Your task to perform on an android device: Clear the shopping cart on costco. Add "jbl flip 4" to the cart on costco, then select checkout. Image 0: 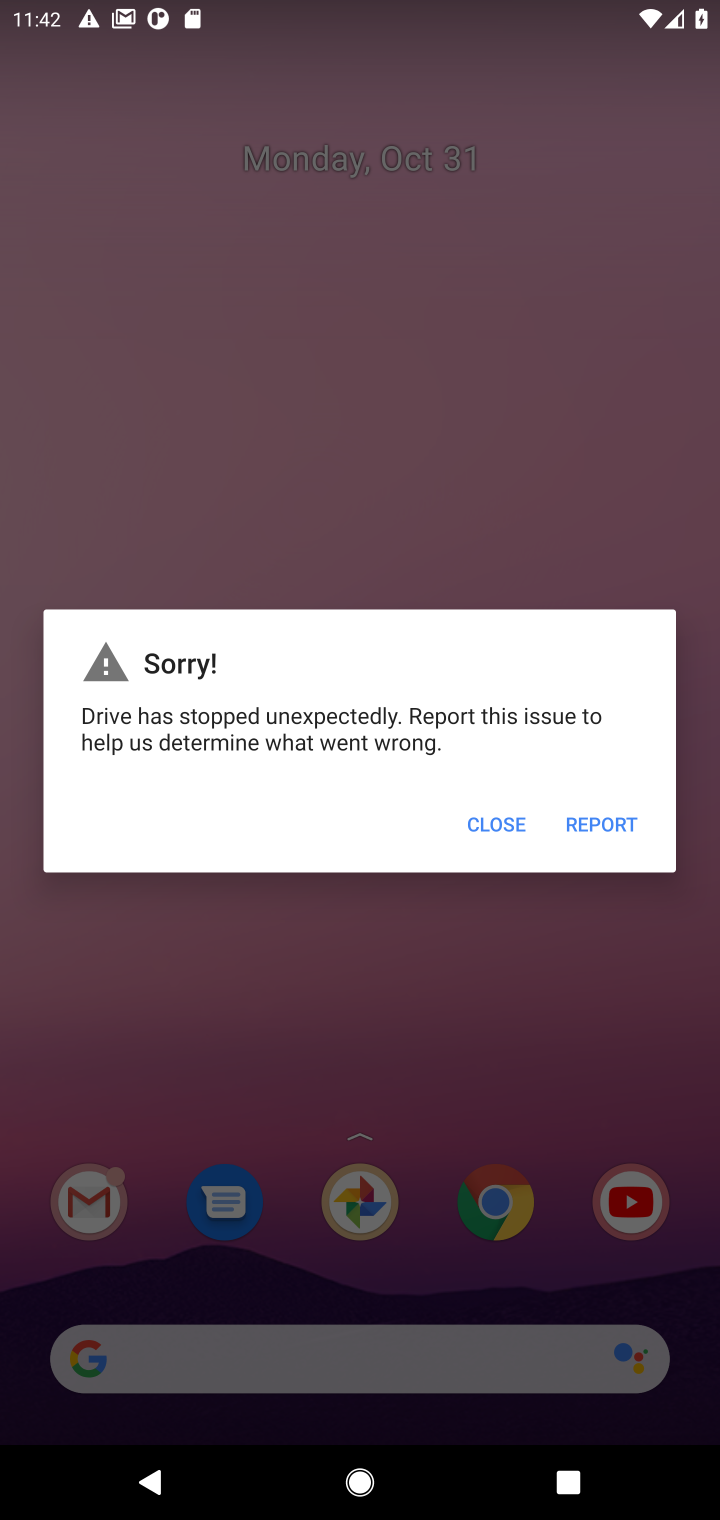
Step 0: click (486, 823)
Your task to perform on an android device: Clear the shopping cart on costco. Add "jbl flip 4" to the cart on costco, then select checkout. Image 1: 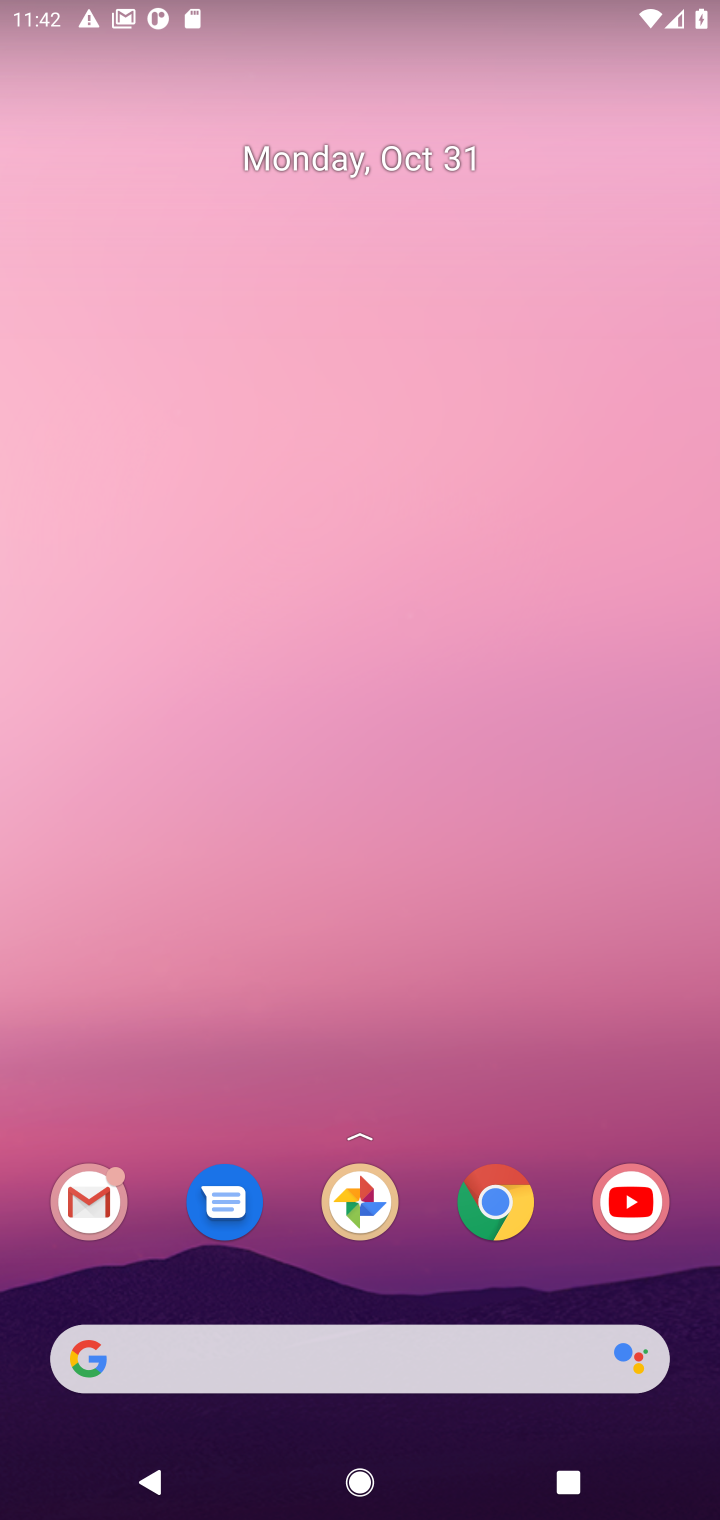
Step 1: click (502, 1201)
Your task to perform on an android device: Clear the shopping cart on costco. Add "jbl flip 4" to the cart on costco, then select checkout. Image 2: 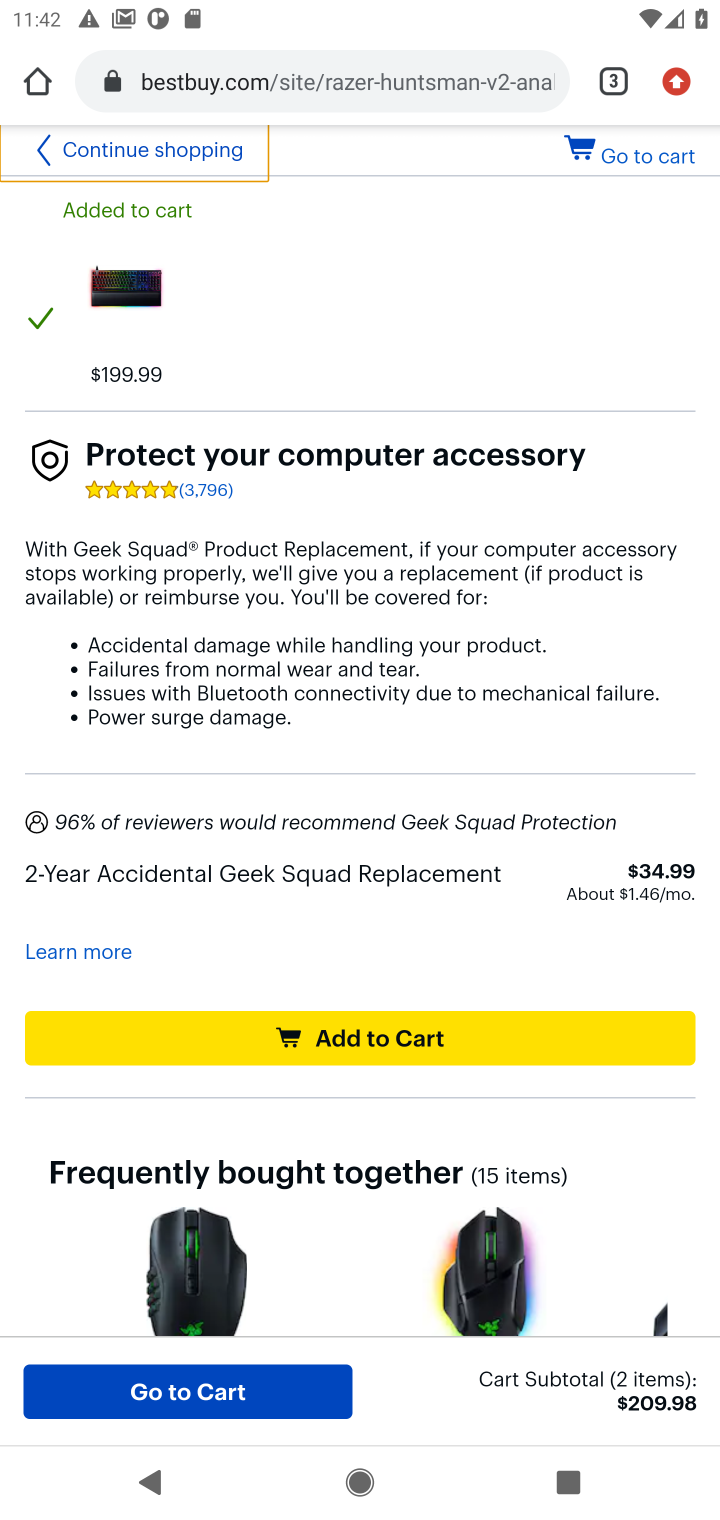
Step 2: click (608, 81)
Your task to perform on an android device: Clear the shopping cart on costco. Add "jbl flip 4" to the cart on costco, then select checkout. Image 3: 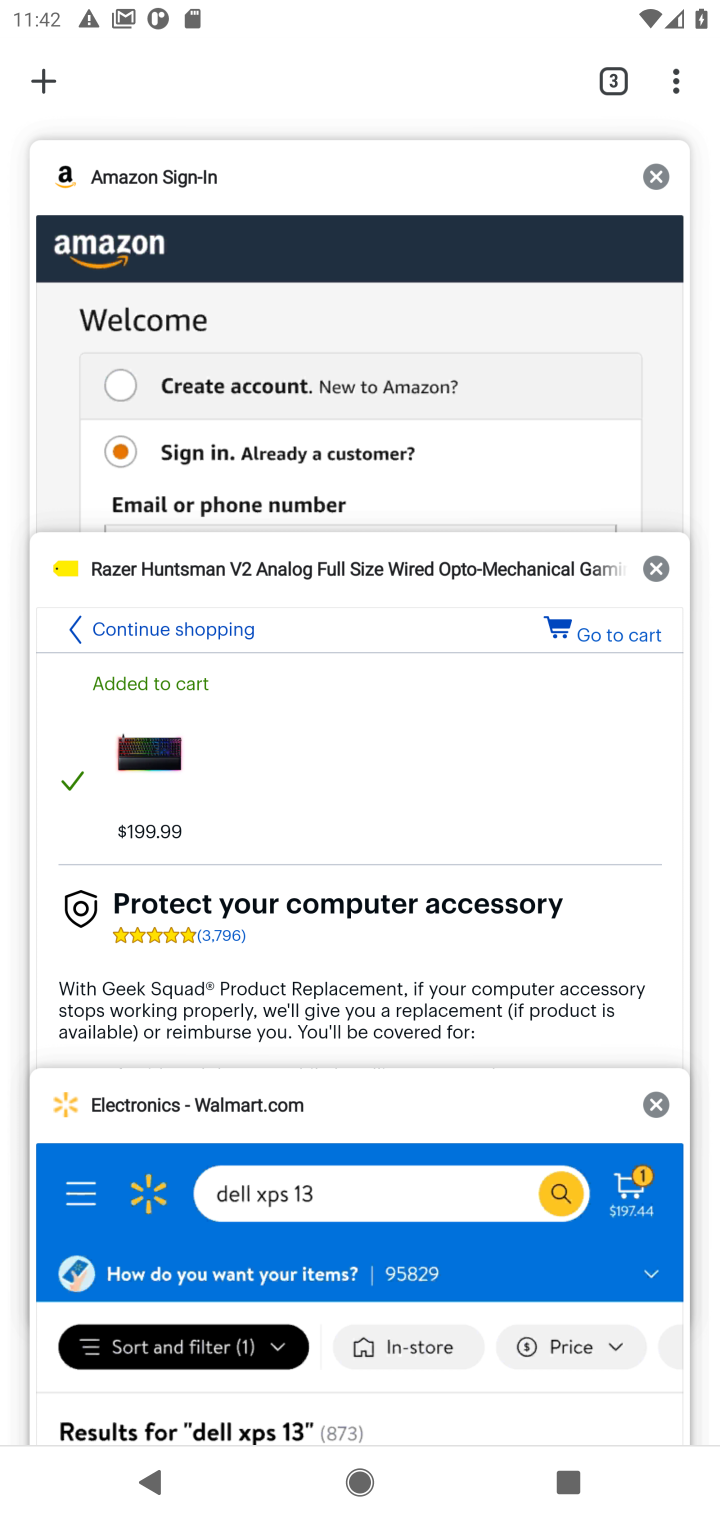
Step 3: click (618, 76)
Your task to perform on an android device: Clear the shopping cart on costco. Add "jbl flip 4" to the cart on costco, then select checkout. Image 4: 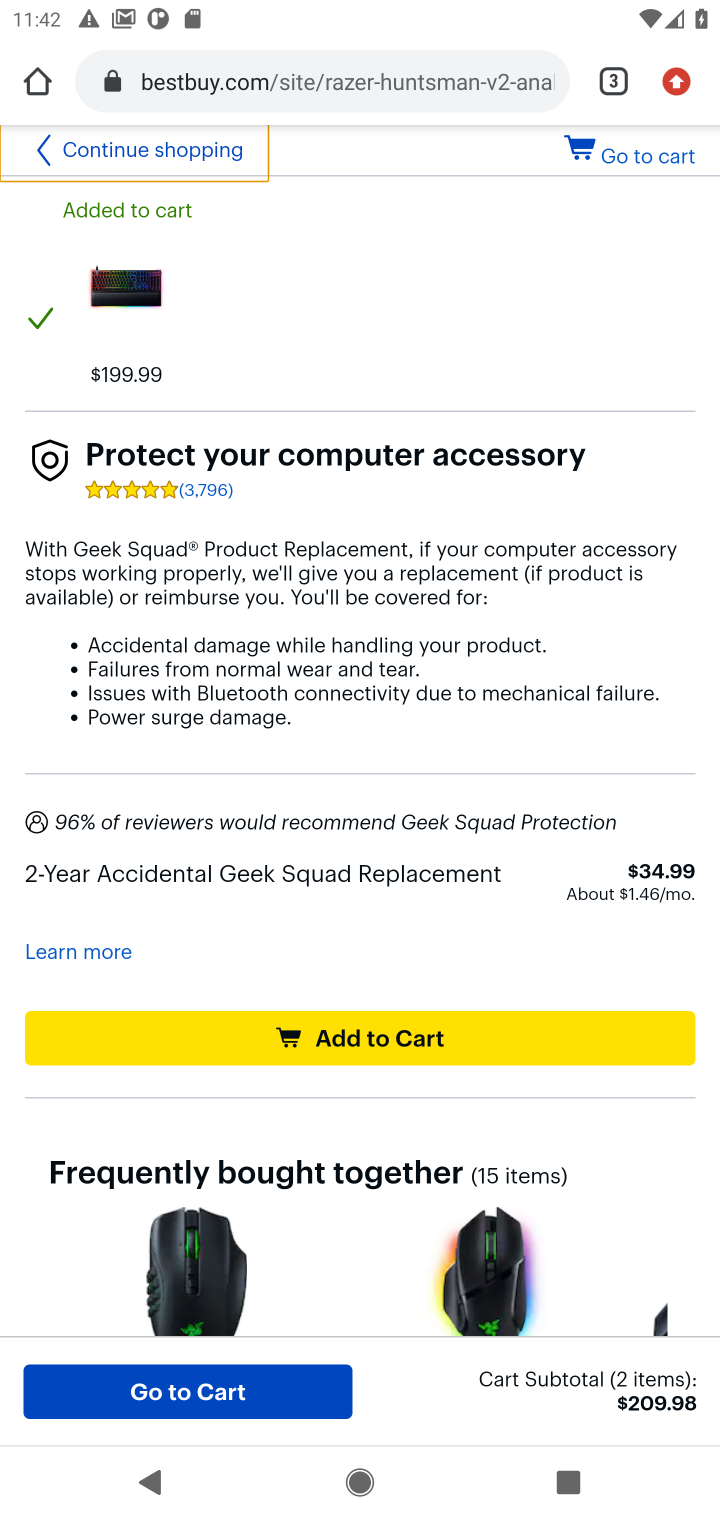
Step 4: click (42, 99)
Your task to perform on an android device: Clear the shopping cart on costco. Add "jbl flip 4" to the cart on costco, then select checkout. Image 5: 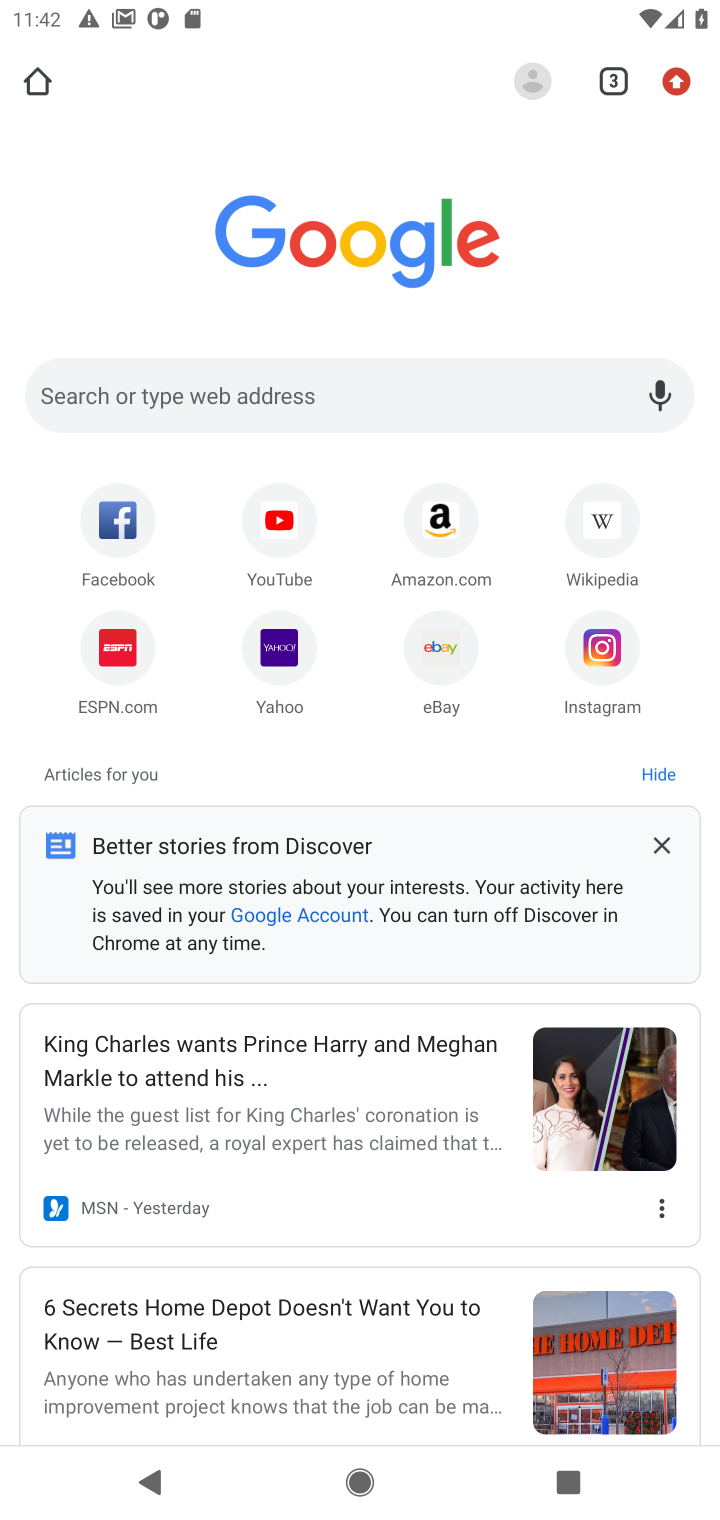
Step 5: click (42, 84)
Your task to perform on an android device: Clear the shopping cart on costco. Add "jbl flip 4" to the cart on costco, then select checkout. Image 6: 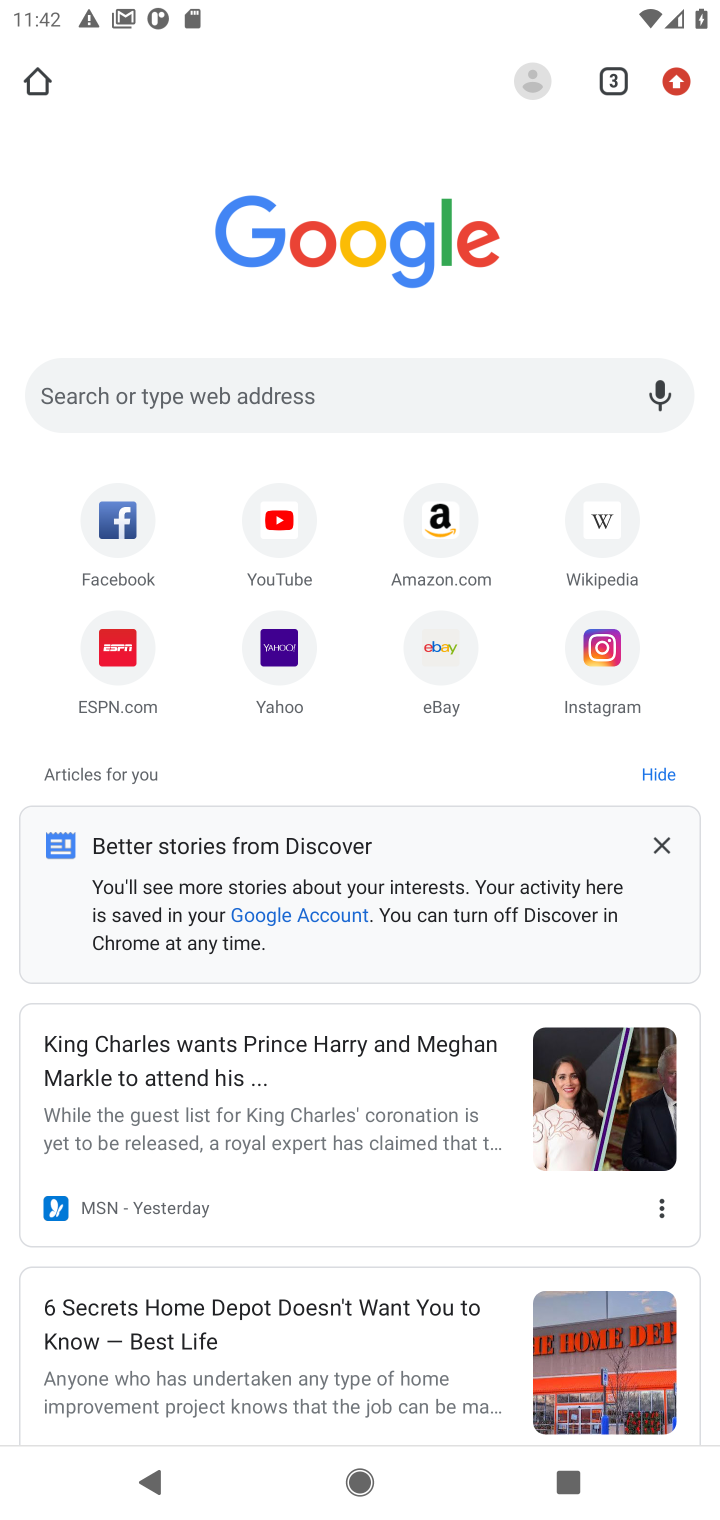
Step 6: click (600, 77)
Your task to perform on an android device: Clear the shopping cart on costco. Add "jbl flip 4" to the cart on costco, then select checkout. Image 7: 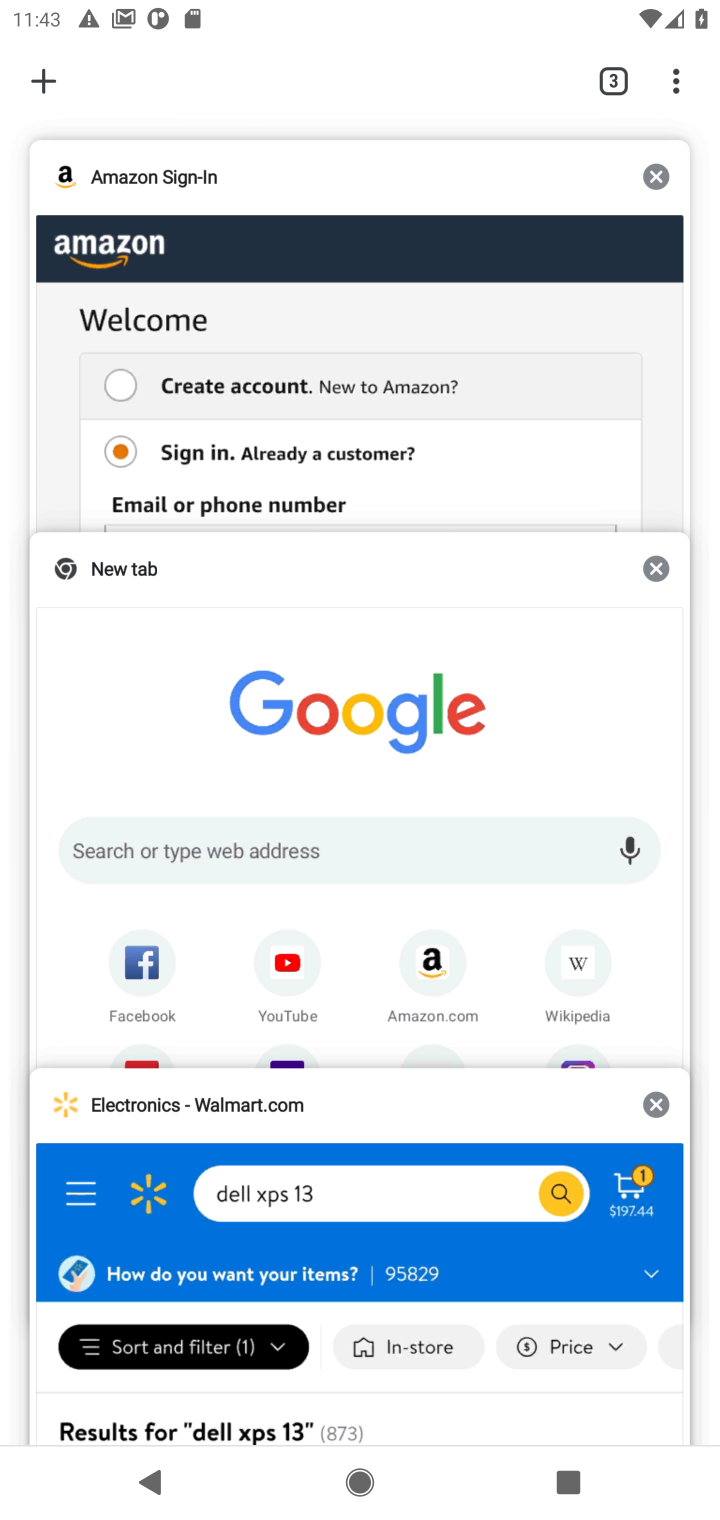
Step 7: click (615, 78)
Your task to perform on an android device: Clear the shopping cart on costco. Add "jbl flip 4" to the cart on costco, then select checkout. Image 8: 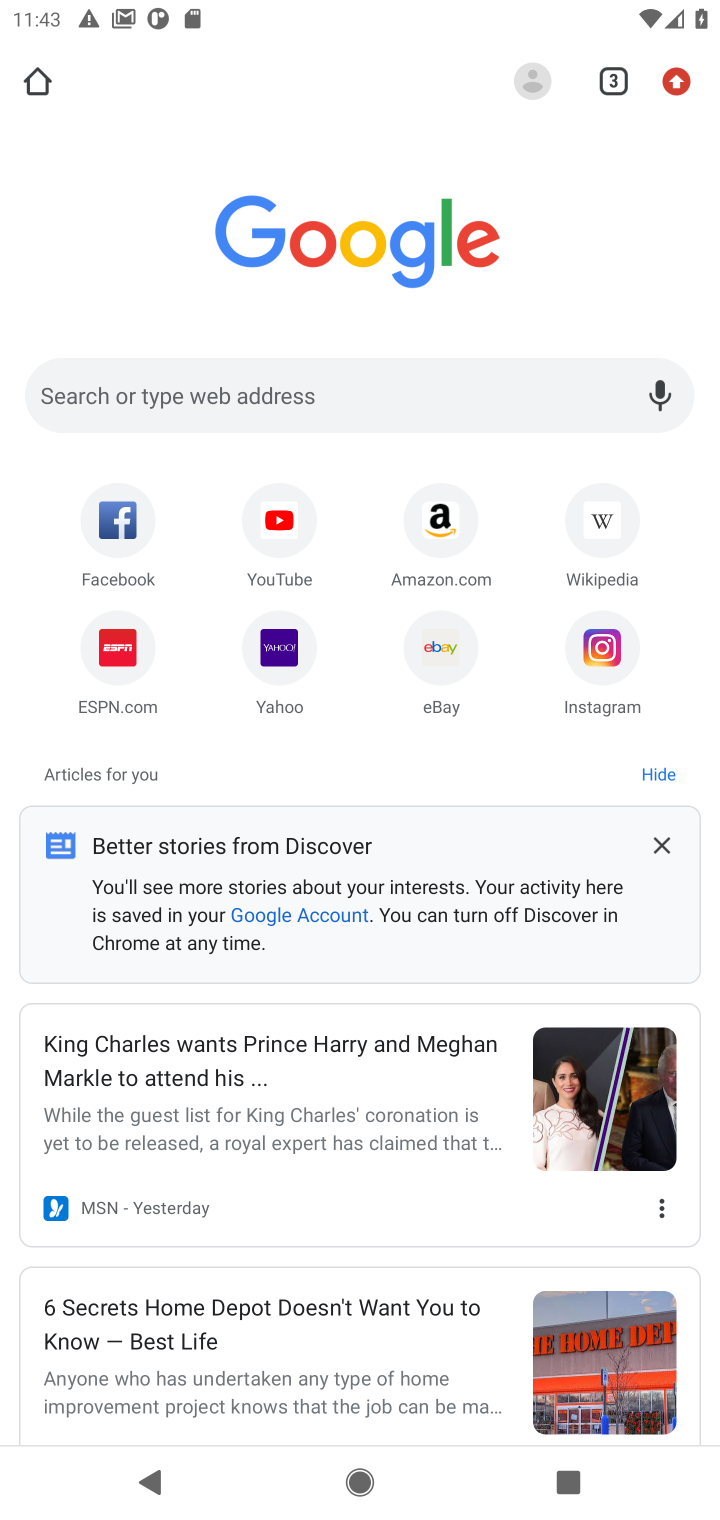
Step 8: click (610, 84)
Your task to perform on an android device: Clear the shopping cart on costco. Add "jbl flip 4" to the cart on costco, then select checkout. Image 9: 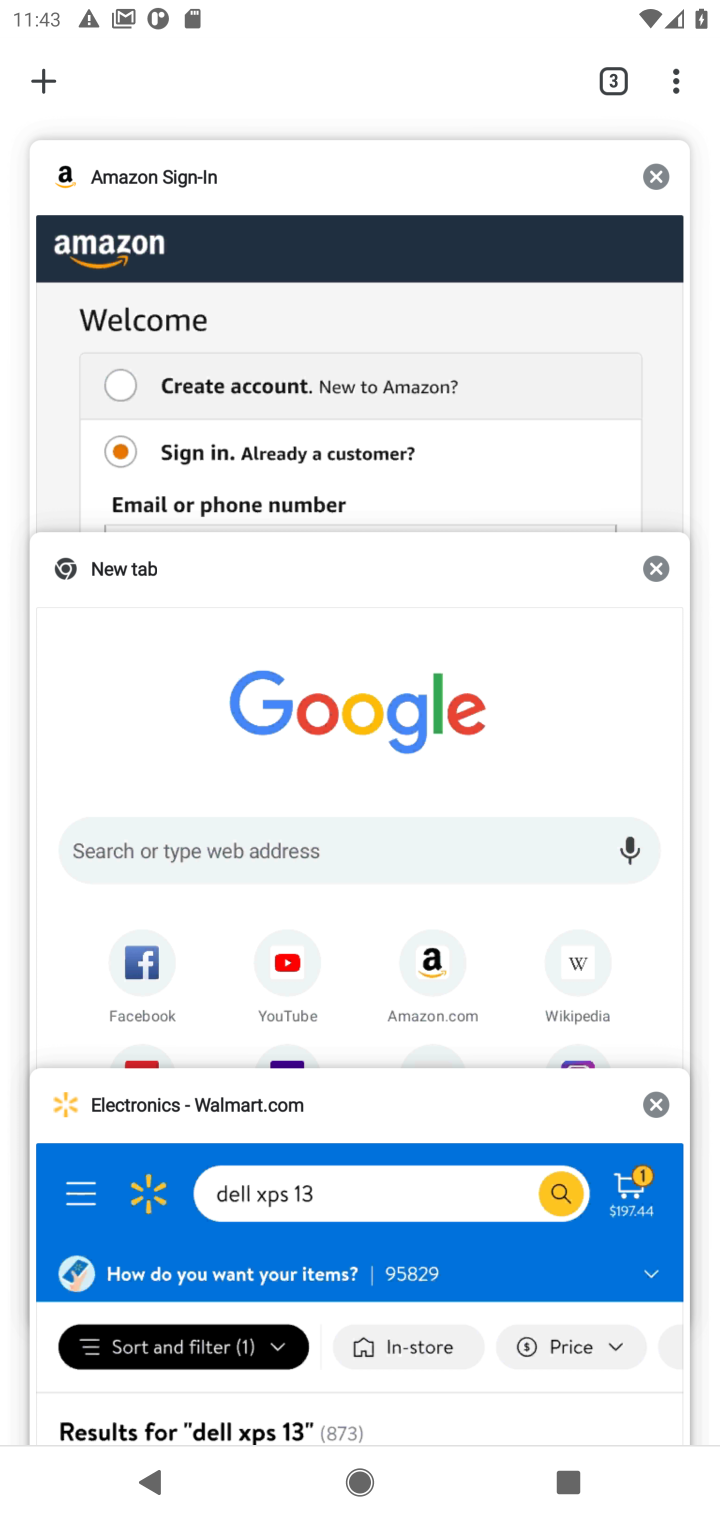
Step 9: click (49, 79)
Your task to perform on an android device: Clear the shopping cart on costco. Add "jbl flip 4" to the cart on costco, then select checkout. Image 10: 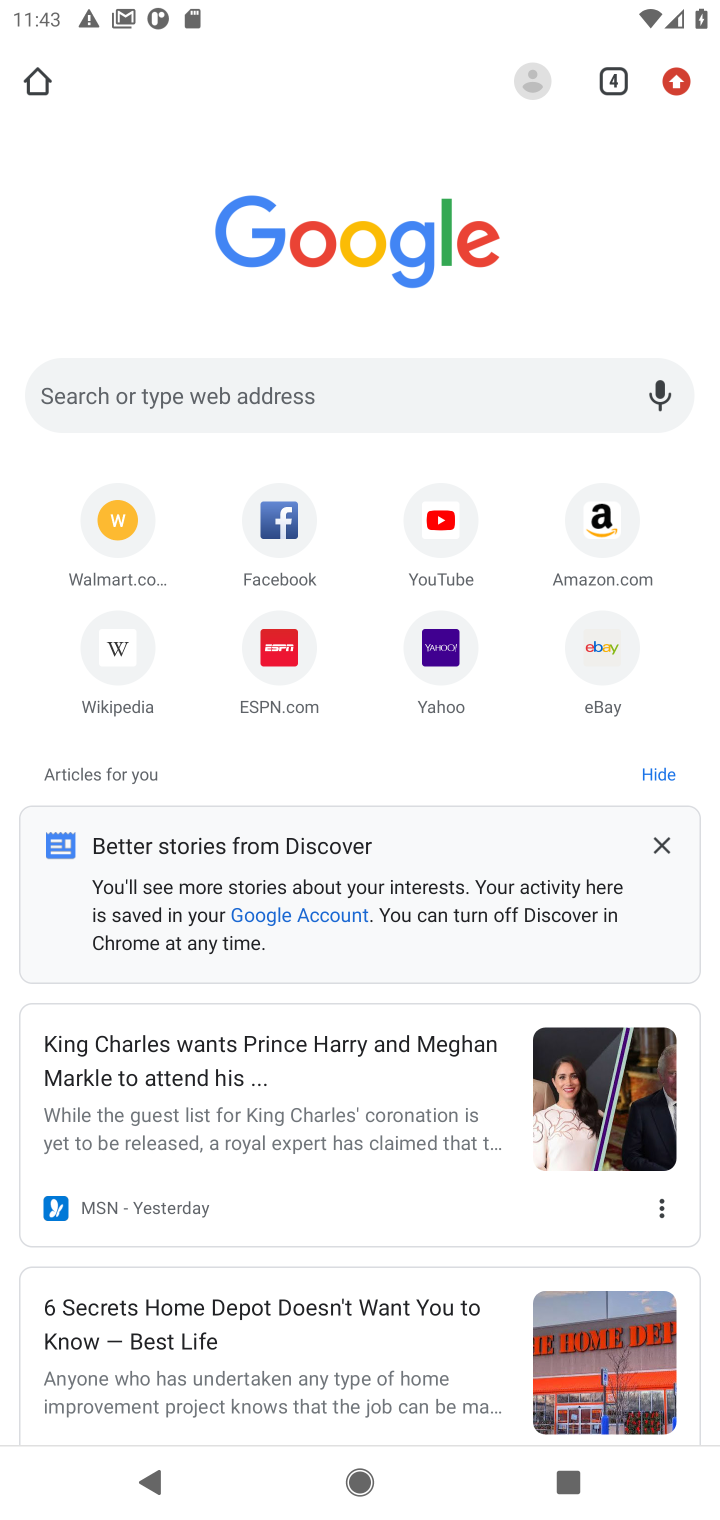
Step 10: click (472, 393)
Your task to perform on an android device: Clear the shopping cart on costco. Add "jbl flip 4" to the cart on costco, then select checkout. Image 11: 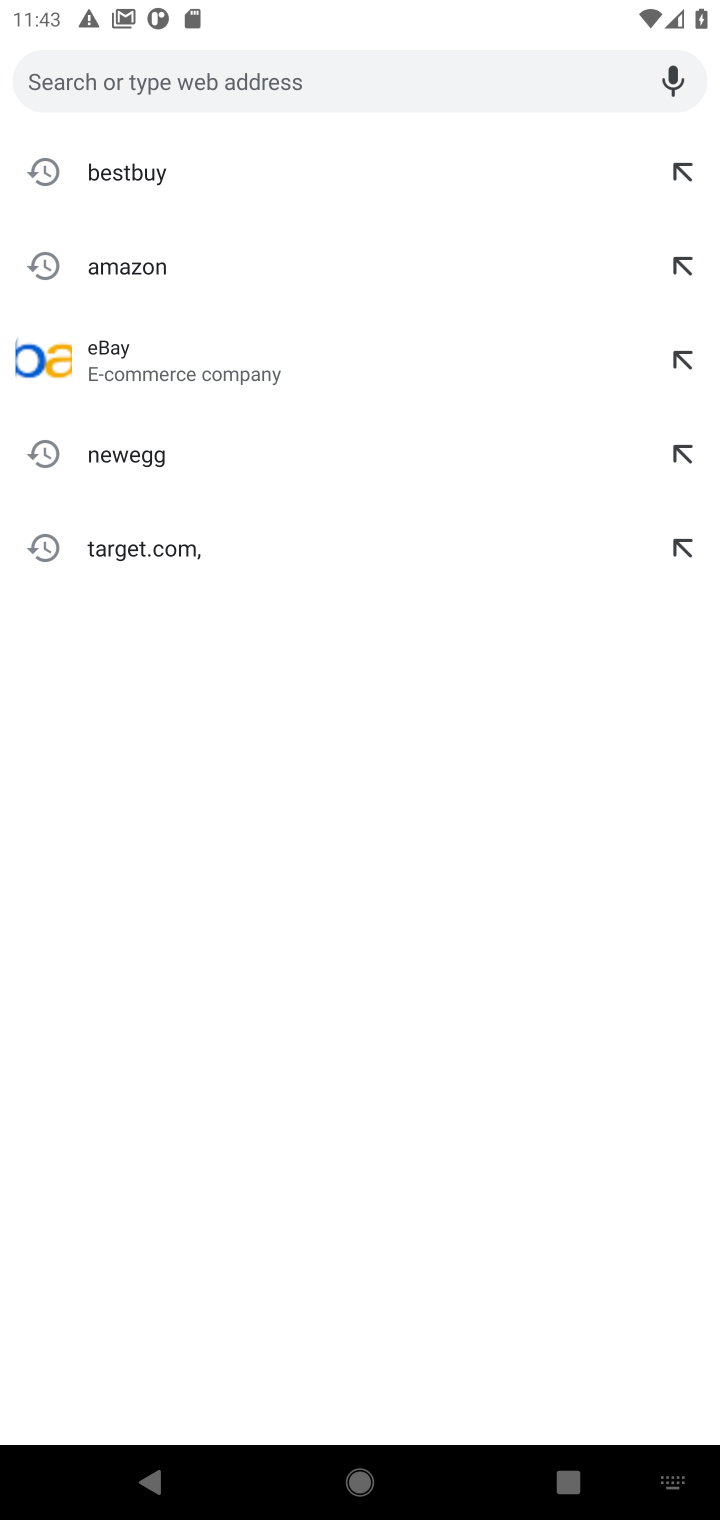
Step 11: type "costco"
Your task to perform on an android device: Clear the shopping cart on costco. Add "jbl flip 4" to the cart on costco, then select checkout. Image 12: 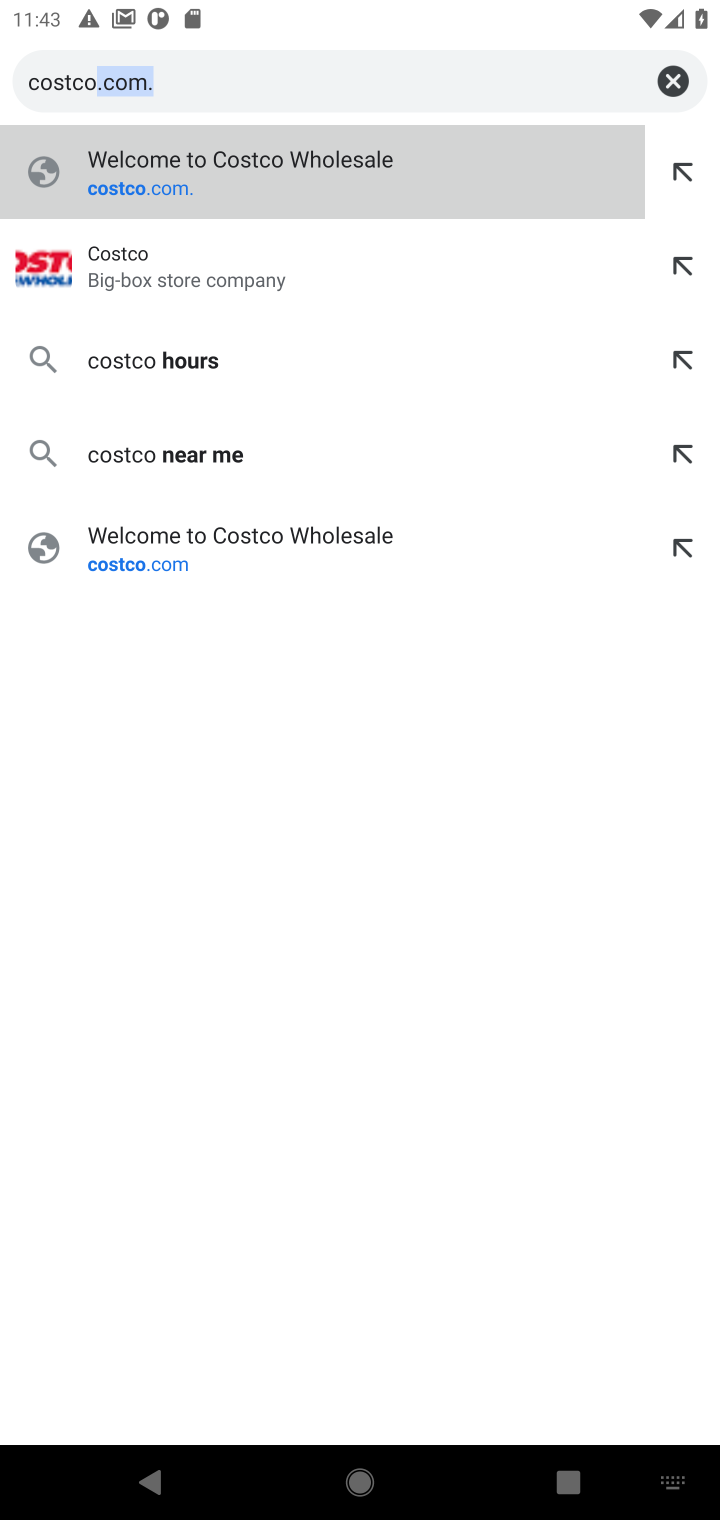
Step 12: click (153, 285)
Your task to perform on an android device: Clear the shopping cart on costco. Add "jbl flip 4" to the cart on costco, then select checkout. Image 13: 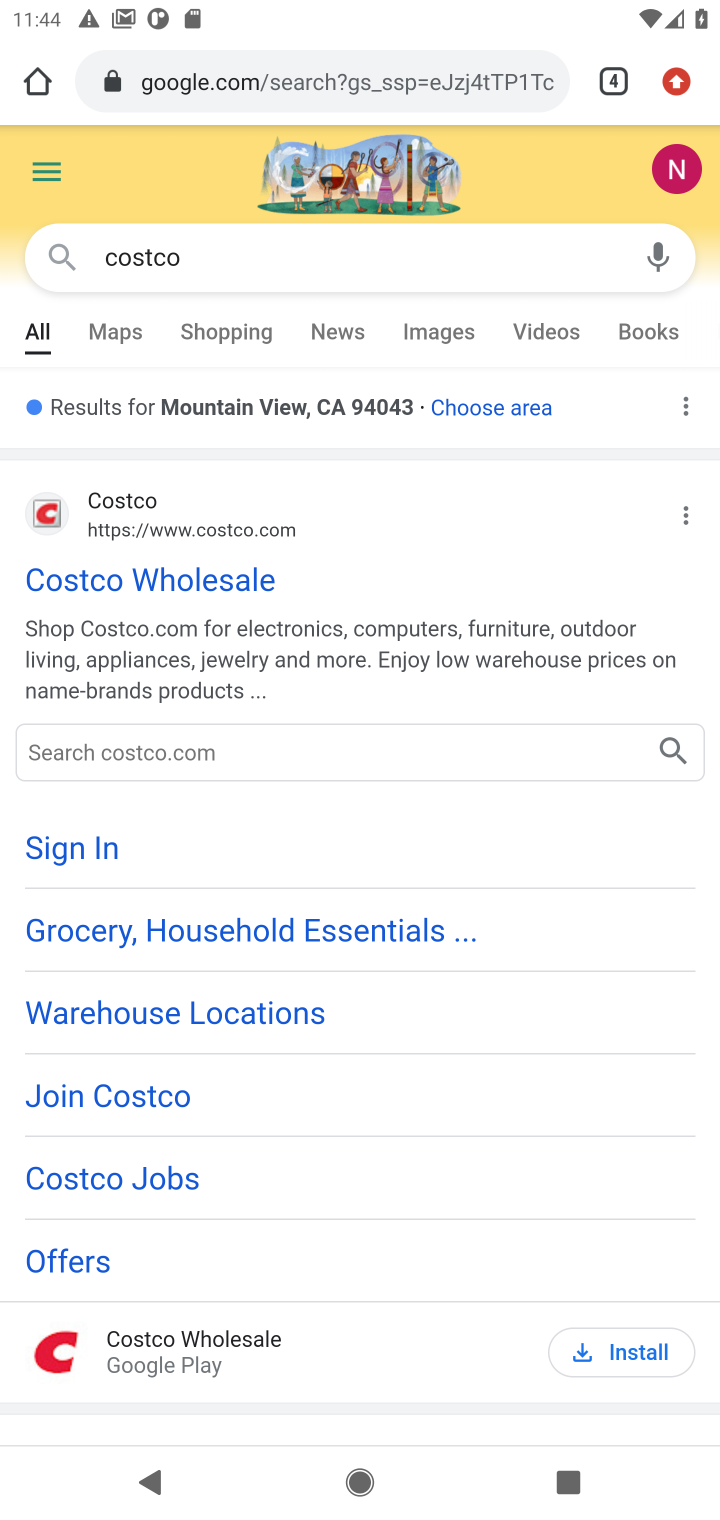
Step 13: click (91, 580)
Your task to perform on an android device: Clear the shopping cart on costco. Add "jbl flip 4" to the cart on costco, then select checkout. Image 14: 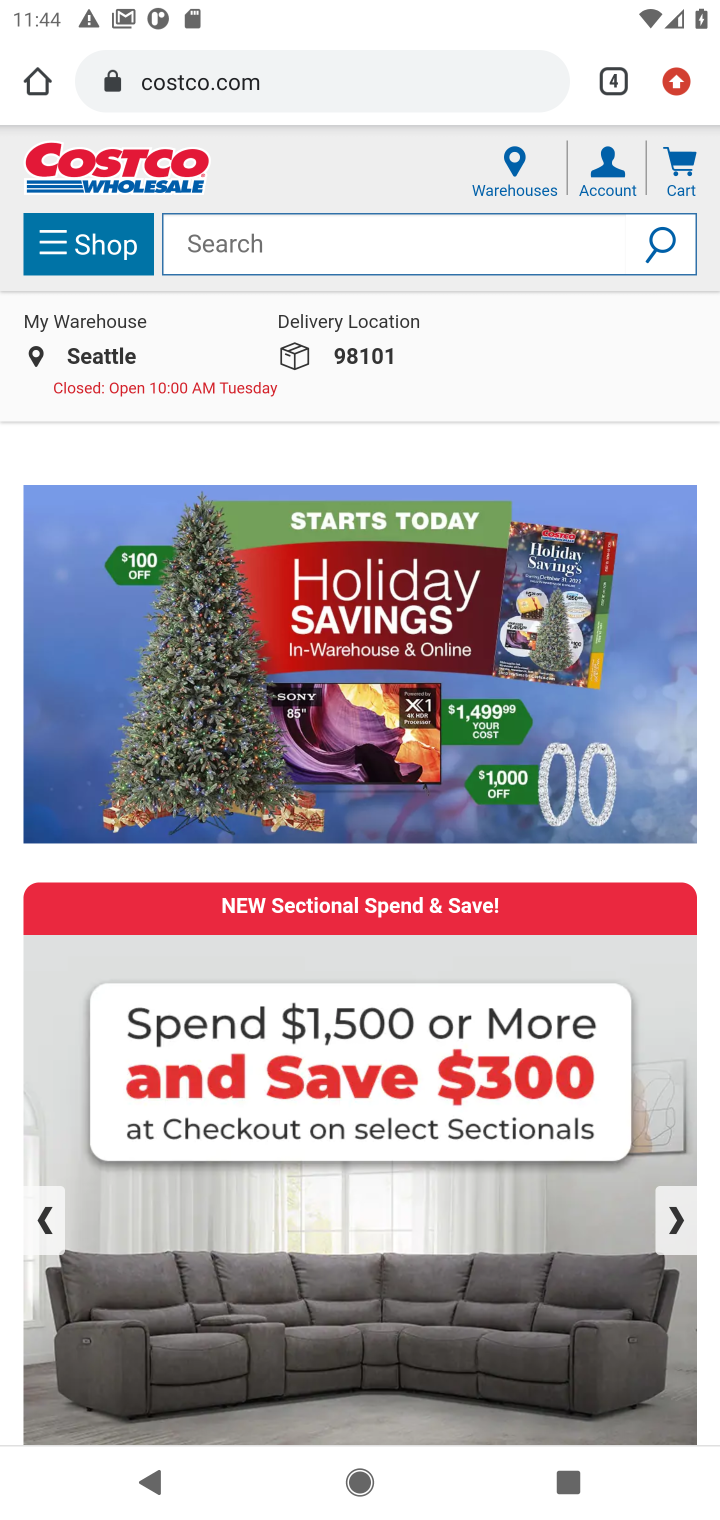
Step 14: click (366, 241)
Your task to perform on an android device: Clear the shopping cart on costco. Add "jbl flip 4" to the cart on costco, then select checkout. Image 15: 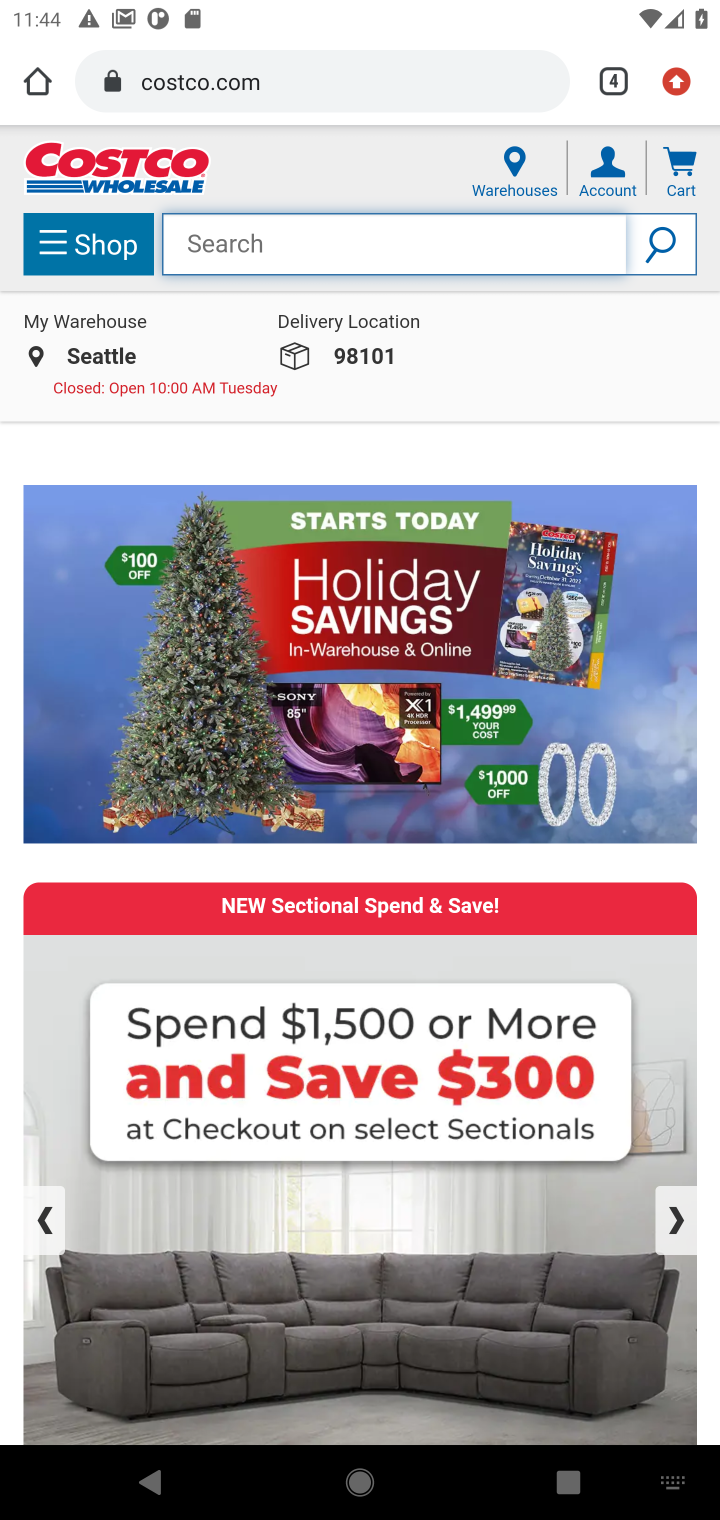
Step 15: type "jbl flip 4"
Your task to perform on an android device: Clear the shopping cart on costco. Add "jbl flip 4" to the cart on costco, then select checkout. Image 16: 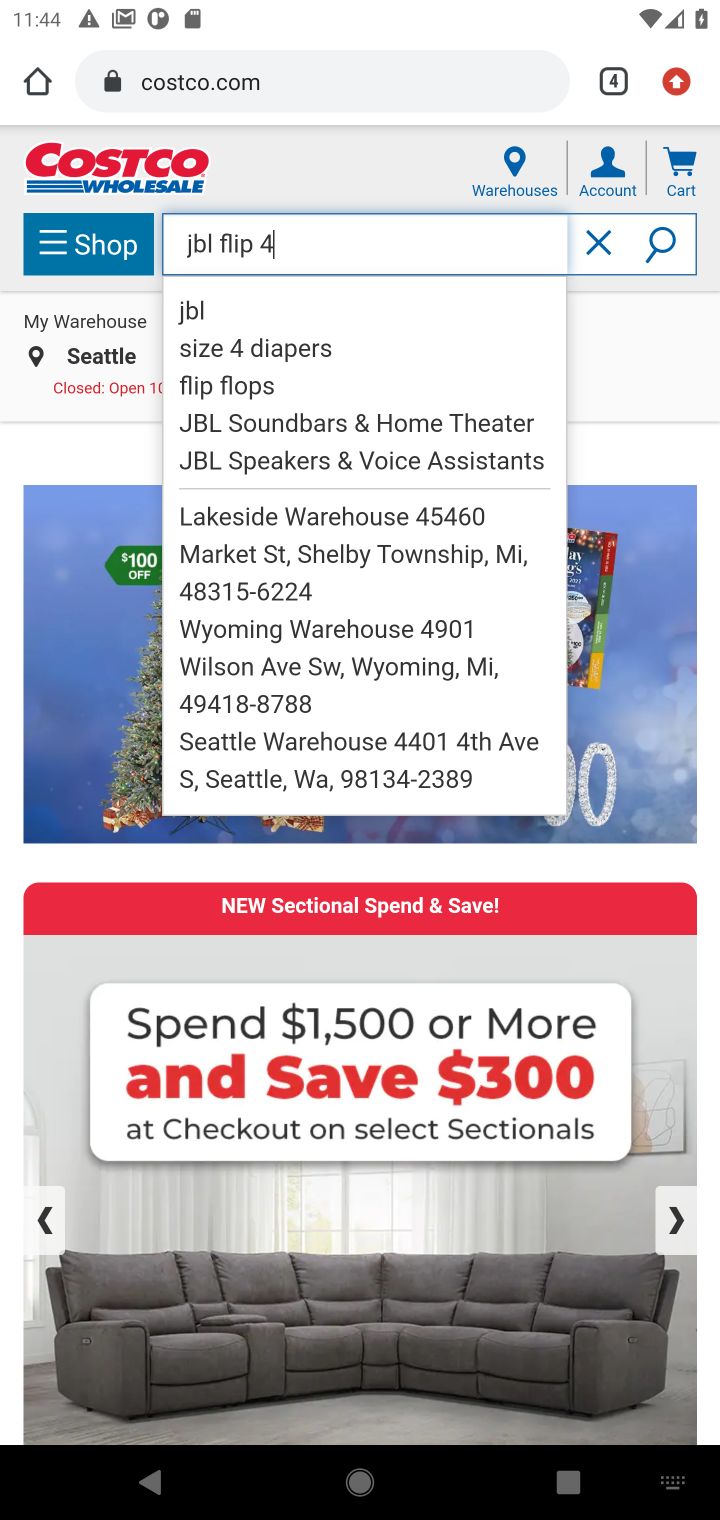
Step 16: click (198, 313)
Your task to perform on an android device: Clear the shopping cart on costco. Add "jbl flip 4" to the cart on costco, then select checkout. Image 17: 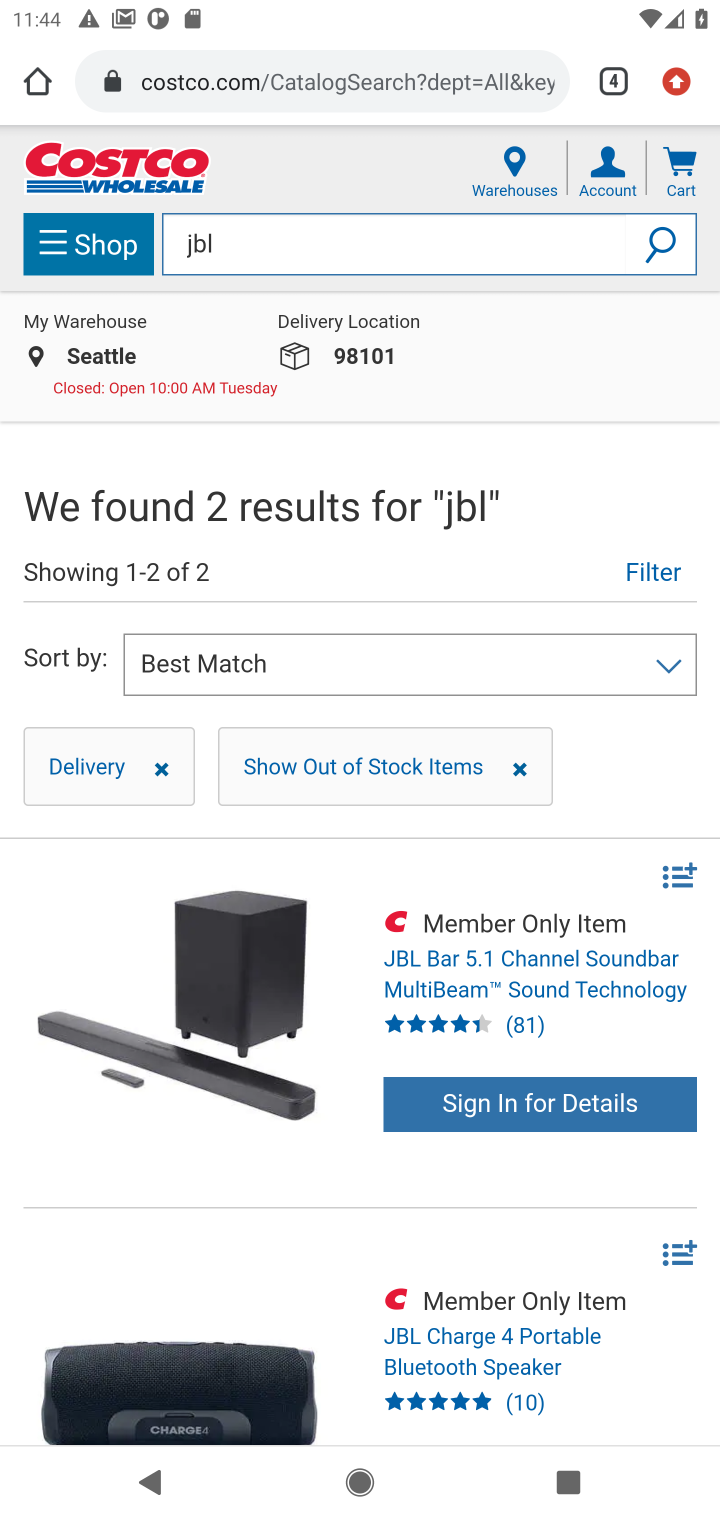
Step 17: drag from (286, 1272) to (348, 1040)
Your task to perform on an android device: Clear the shopping cart on costco. Add "jbl flip 4" to the cart on costco, then select checkout. Image 18: 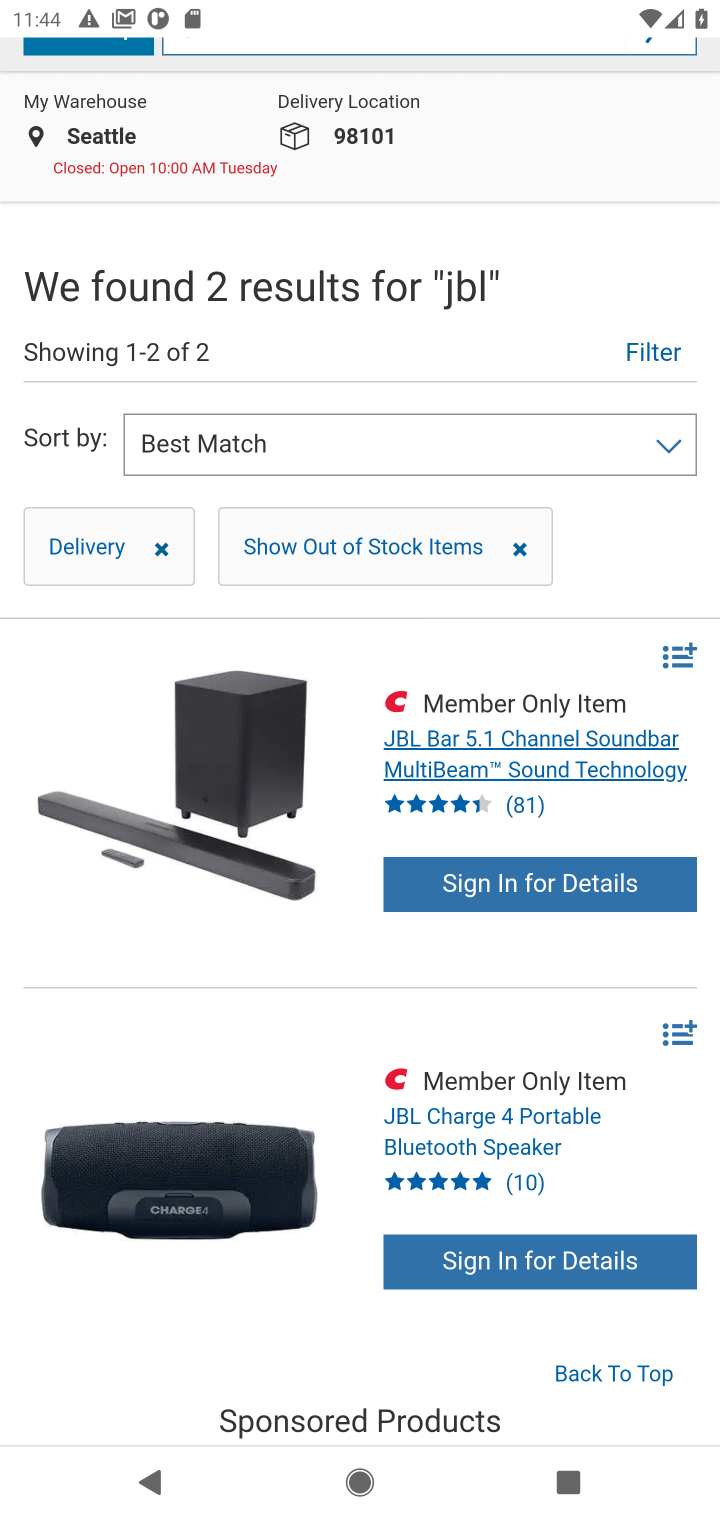
Step 18: drag from (332, 1292) to (534, 808)
Your task to perform on an android device: Clear the shopping cart on costco. Add "jbl flip 4" to the cart on costco, then select checkout. Image 19: 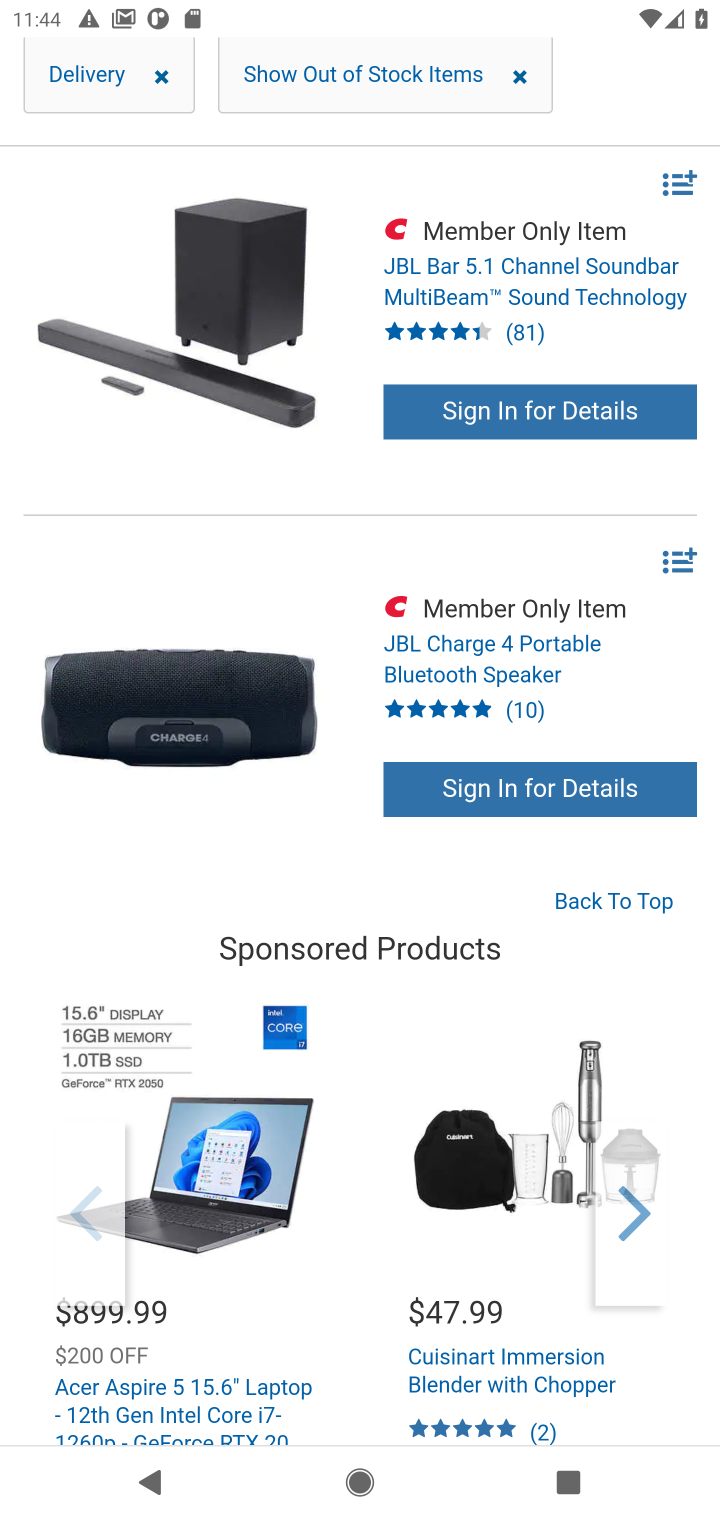
Step 19: click (460, 652)
Your task to perform on an android device: Clear the shopping cart on costco. Add "jbl flip 4" to the cart on costco, then select checkout. Image 20: 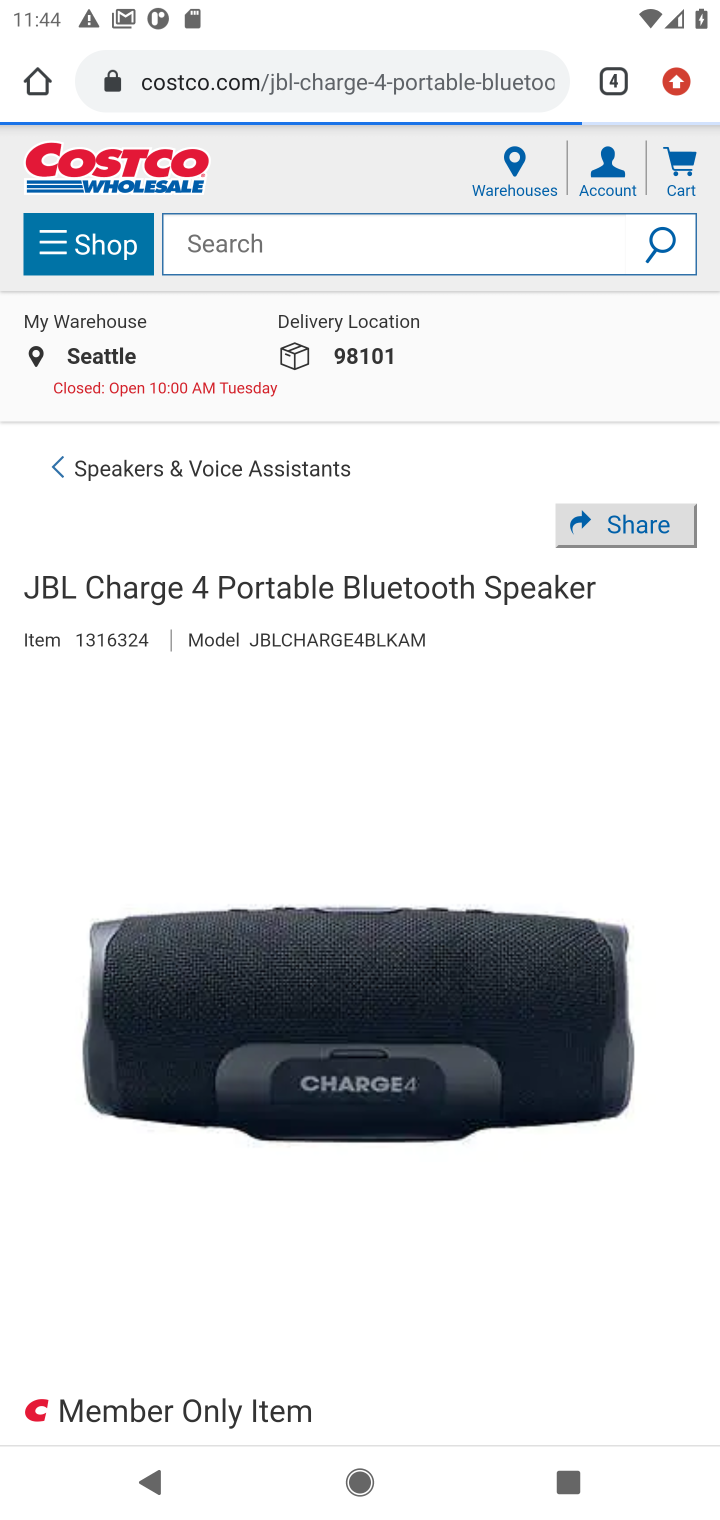
Step 20: drag from (452, 1199) to (583, 24)
Your task to perform on an android device: Clear the shopping cart on costco. Add "jbl flip 4" to the cart on costco, then select checkout. Image 21: 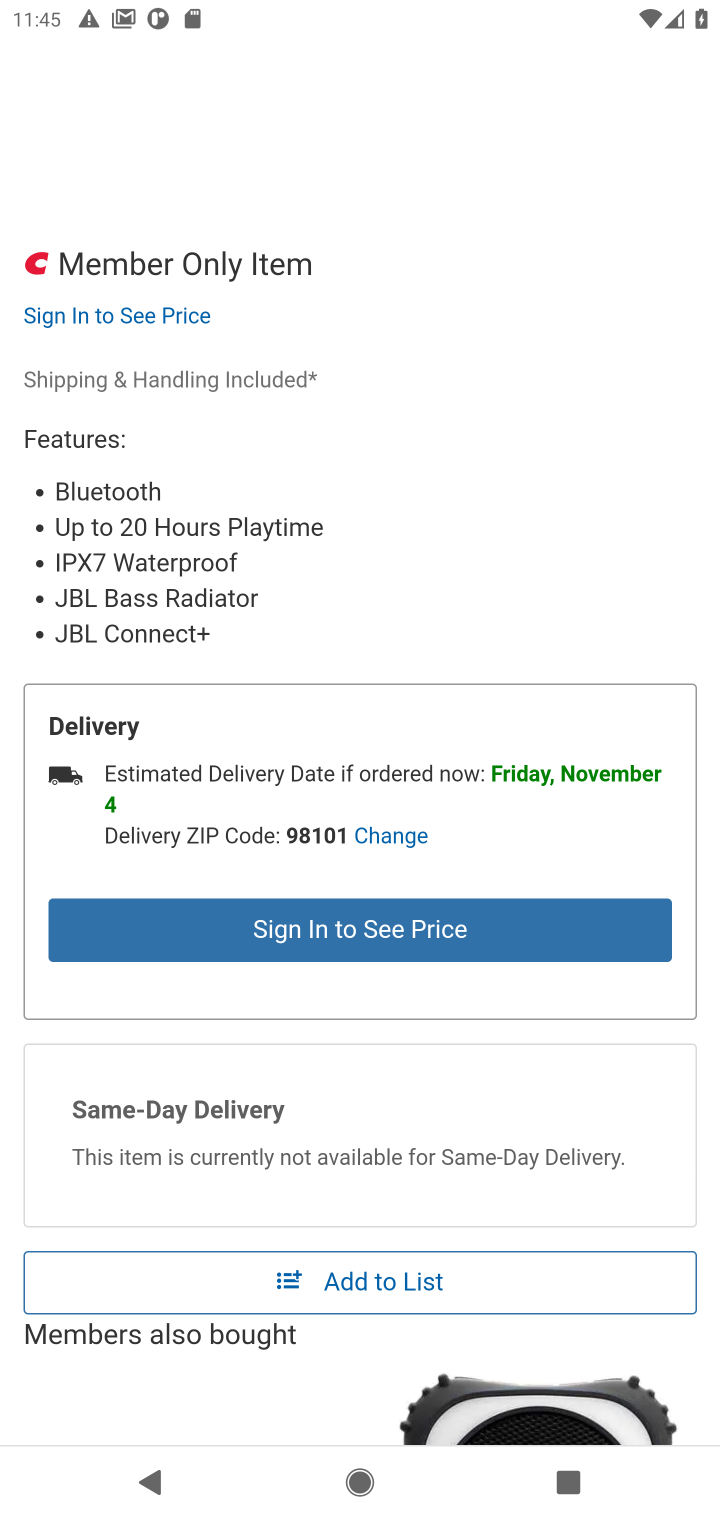
Step 21: click (347, 1278)
Your task to perform on an android device: Clear the shopping cart on costco. Add "jbl flip 4" to the cart on costco, then select checkout. Image 22: 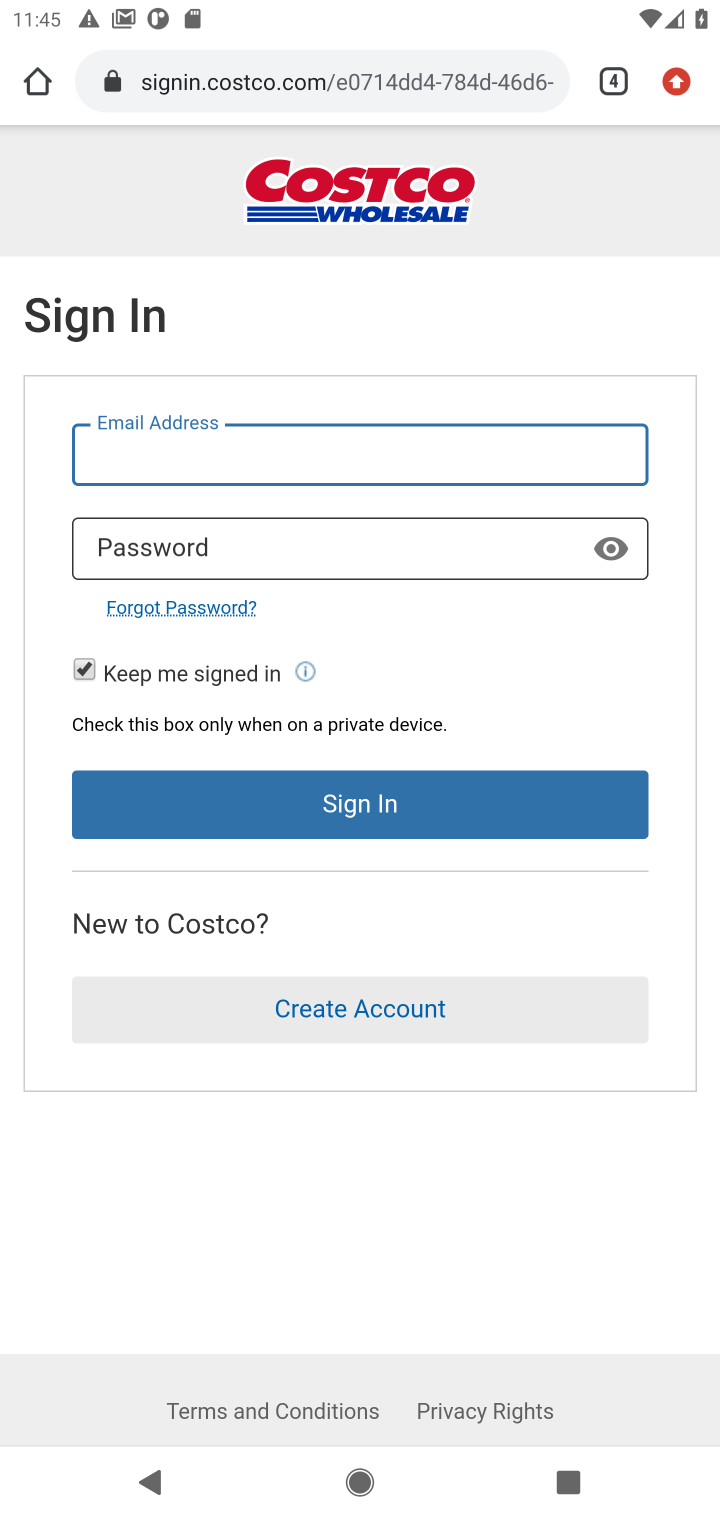
Step 22: task complete